Your task to perform on an android device: Open ESPN.com Image 0: 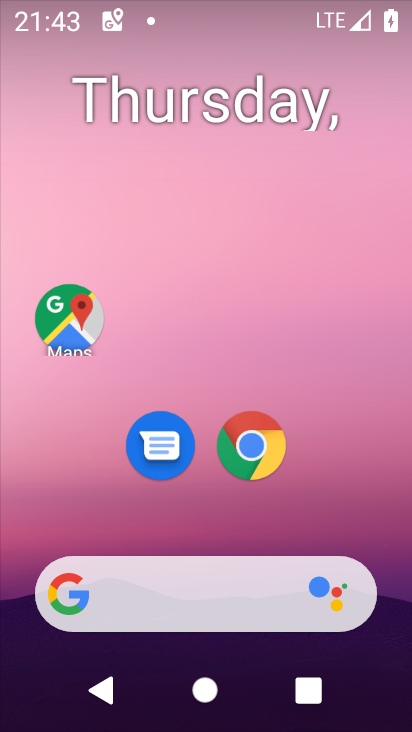
Step 0: drag from (203, 481) to (251, 42)
Your task to perform on an android device: Open ESPN.com Image 1: 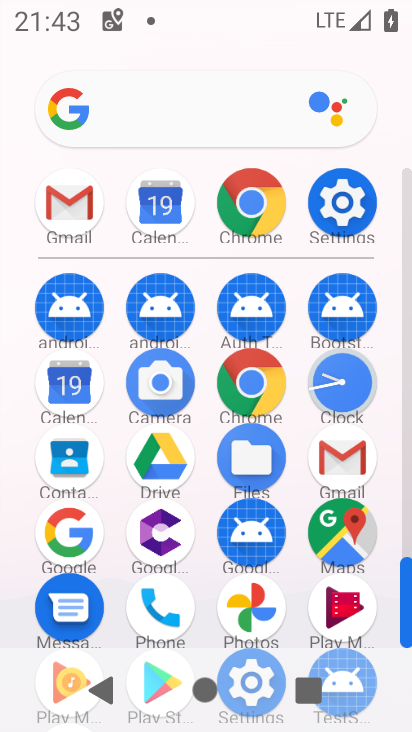
Step 1: click (254, 187)
Your task to perform on an android device: Open ESPN.com Image 2: 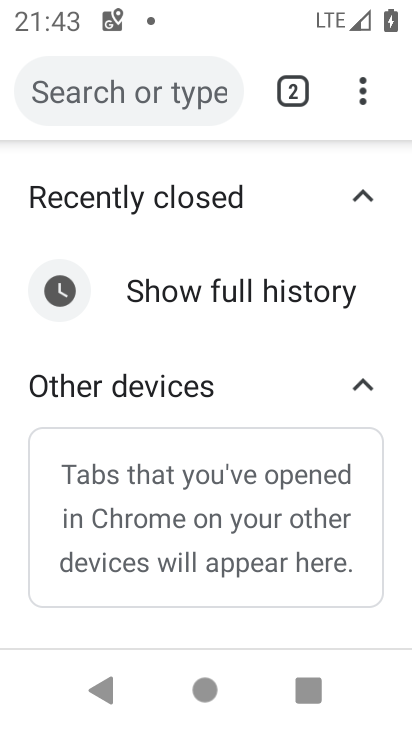
Step 2: click (98, 98)
Your task to perform on an android device: Open ESPN.com Image 3: 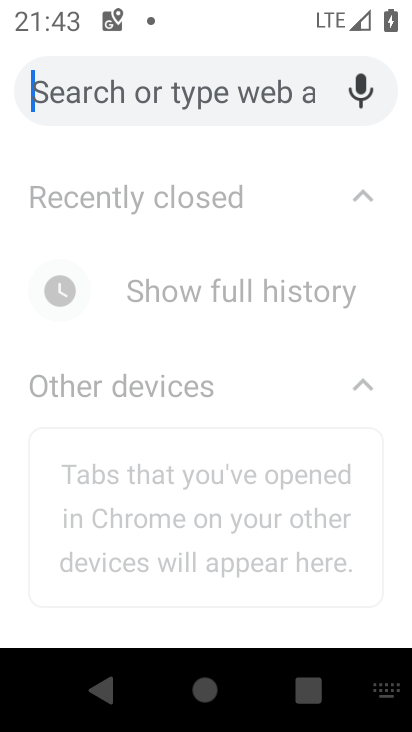
Step 3: click (91, 97)
Your task to perform on an android device: Open ESPN.com Image 4: 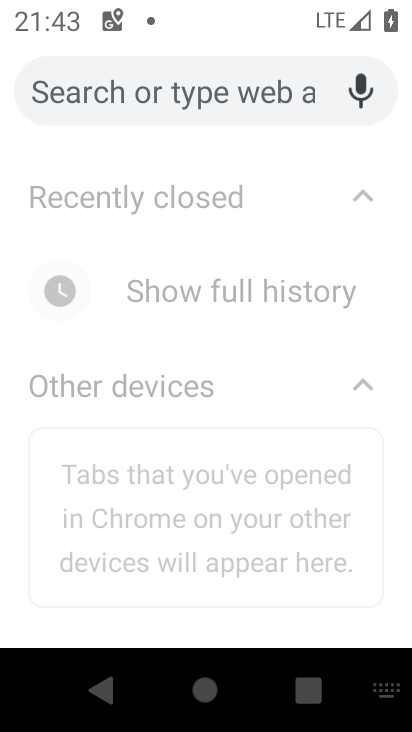
Step 4: type "ESPN.com"
Your task to perform on an android device: Open ESPN.com Image 5: 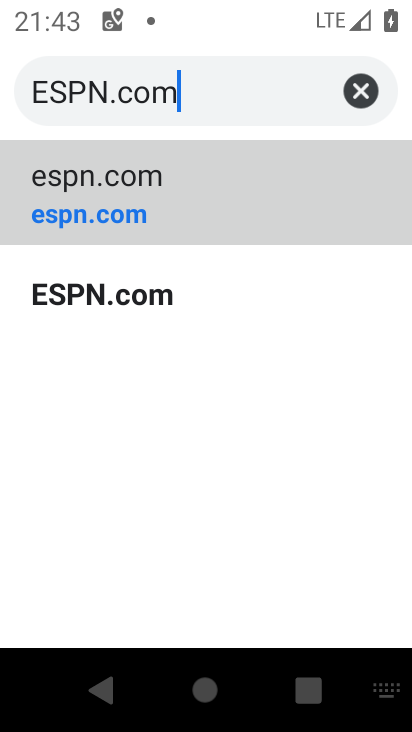
Step 5: type ""
Your task to perform on an android device: Open ESPN.com Image 6: 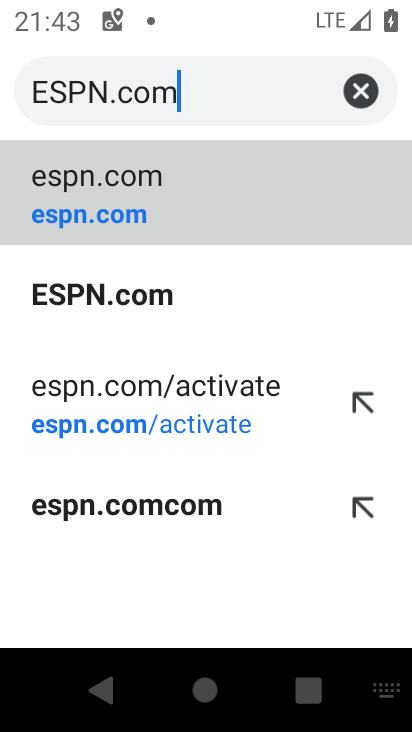
Step 6: click (66, 198)
Your task to perform on an android device: Open ESPN.com Image 7: 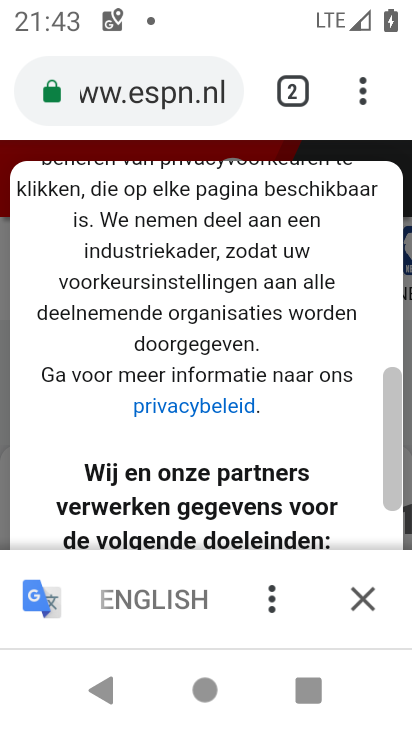
Step 7: task complete